Your task to perform on an android device: manage bookmarks in the chrome app Image 0: 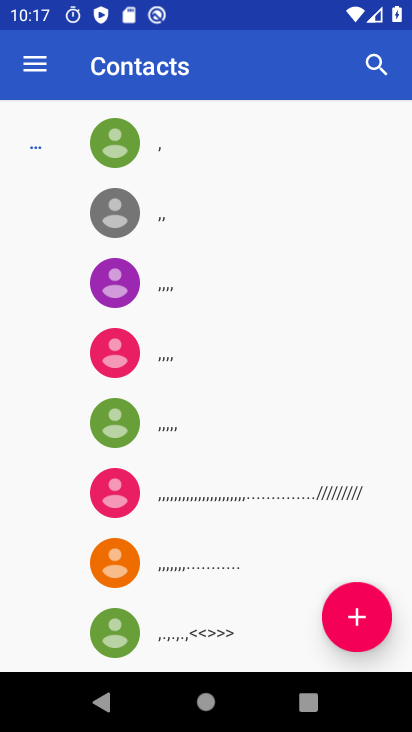
Step 0: press home button
Your task to perform on an android device: manage bookmarks in the chrome app Image 1: 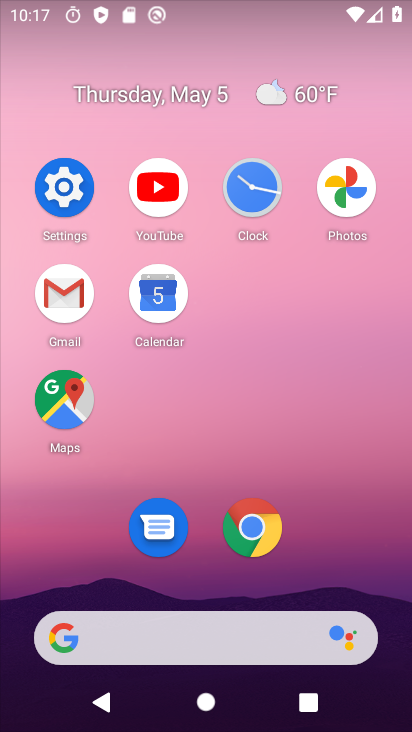
Step 1: click (261, 507)
Your task to perform on an android device: manage bookmarks in the chrome app Image 2: 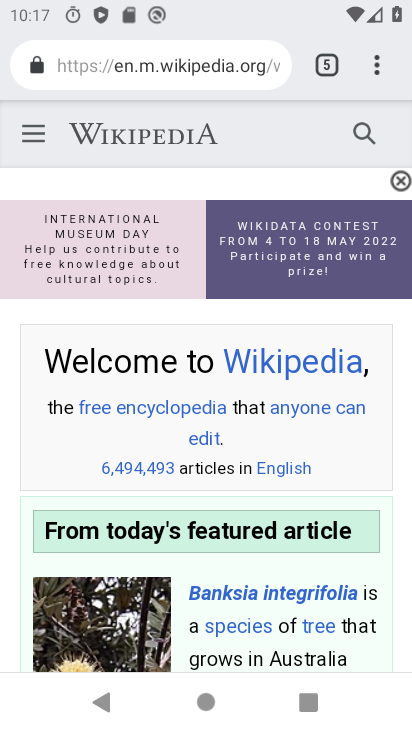
Step 2: click (385, 66)
Your task to perform on an android device: manage bookmarks in the chrome app Image 3: 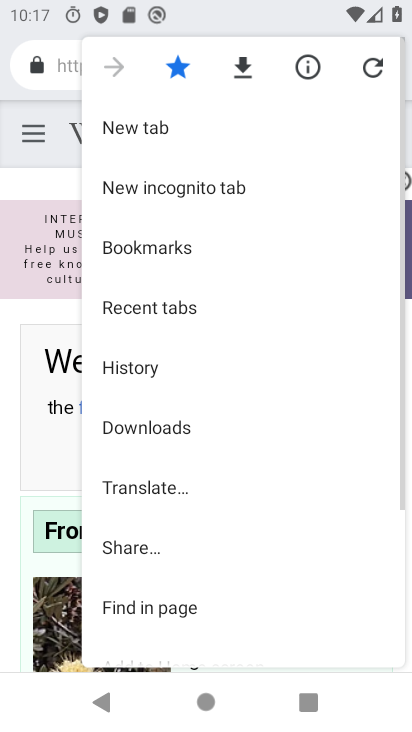
Step 3: click (158, 254)
Your task to perform on an android device: manage bookmarks in the chrome app Image 4: 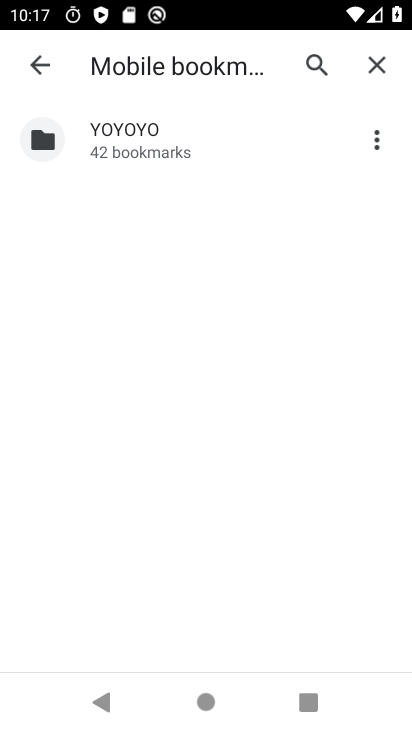
Step 4: click (383, 151)
Your task to perform on an android device: manage bookmarks in the chrome app Image 5: 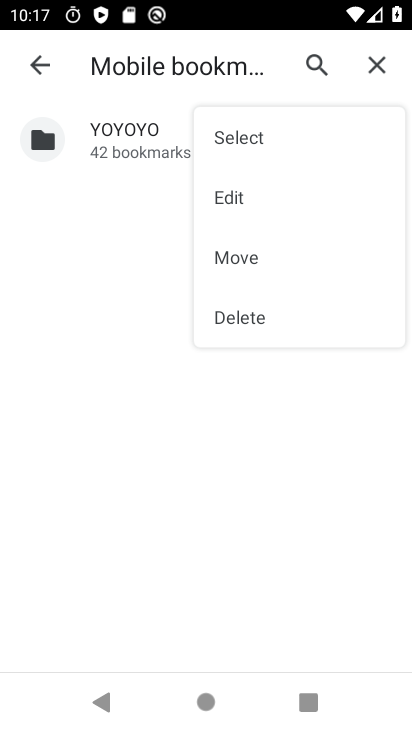
Step 5: click (218, 323)
Your task to perform on an android device: manage bookmarks in the chrome app Image 6: 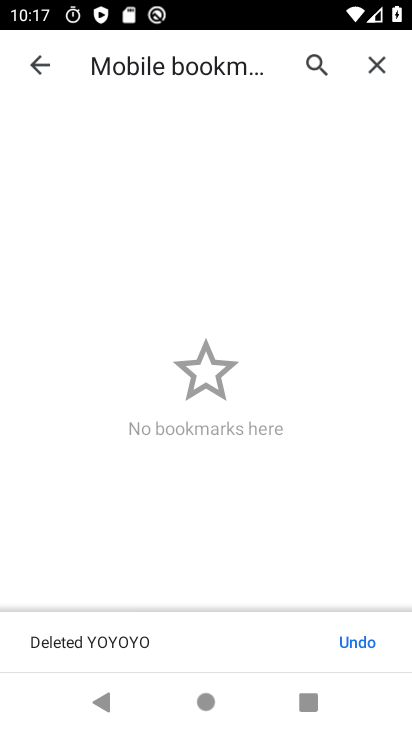
Step 6: task complete